Your task to perform on an android device: turn off data saver in the chrome app Image 0: 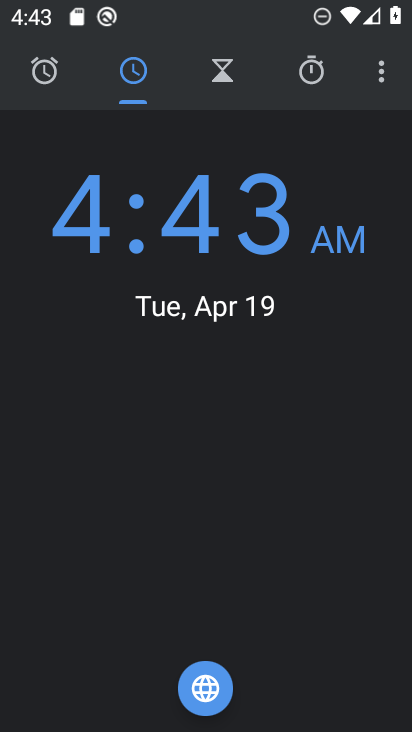
Step 0: press home button
Your task to perform on an android device: turn off data saver in the chrome app Image 1: 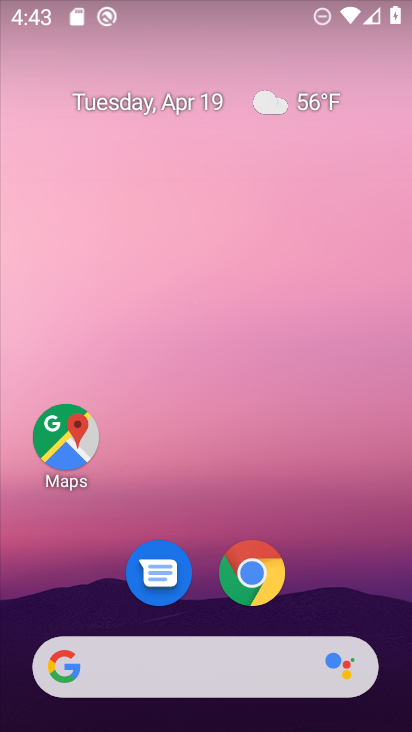
Step 1: click (240, 586)
Your task to perform on an android device: turn off data saver in the chrome app Image 2: 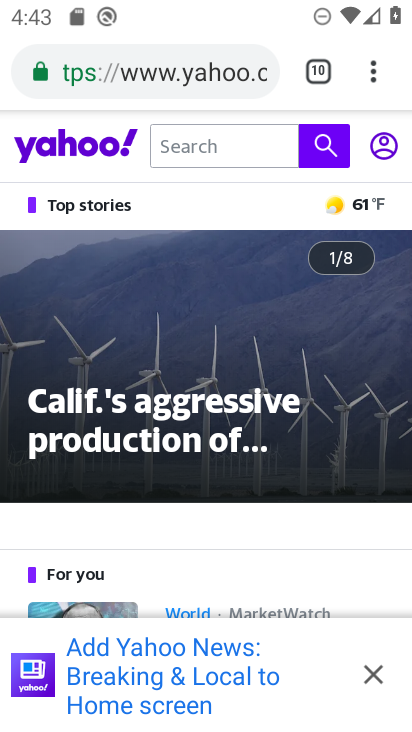
Step 2: click (374, 75)
Your task to perform on an android device: turn off data saver in the chrome app Image 3: 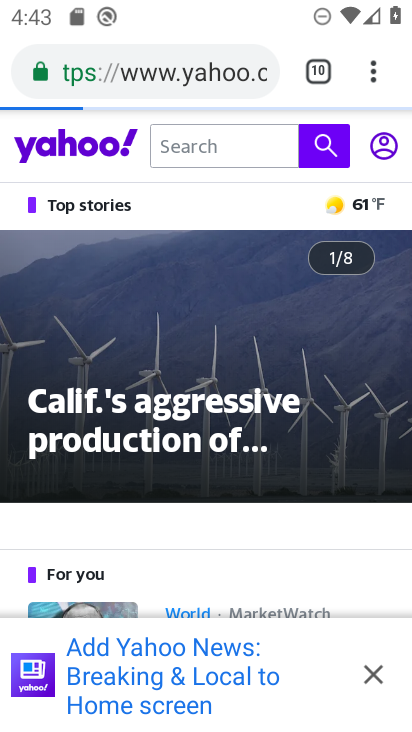
Step 3: click (374, 75)
Your task to perform on an android device: turn off data saver in the chrome app Image 4: 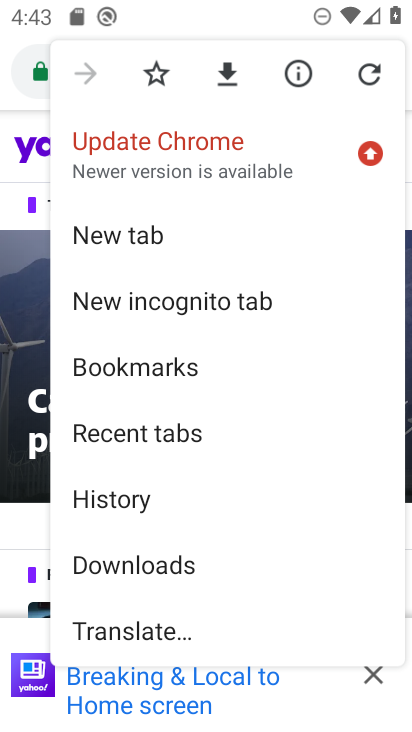
Step 4: drag from (245, 533) to (260, 200)
Your task to perform on an android device: turn off data saver in the chrome app Image 5: 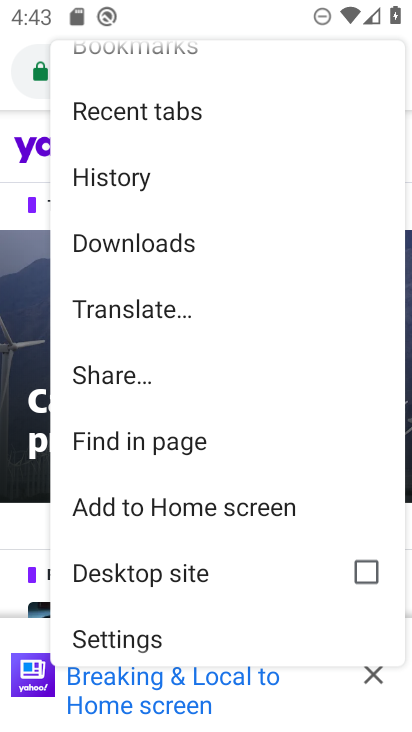
Step 5: drag from (244, 449) to (251, 200)
Your task to perform on an android device: turn off data saver in the chrome app Image 6: 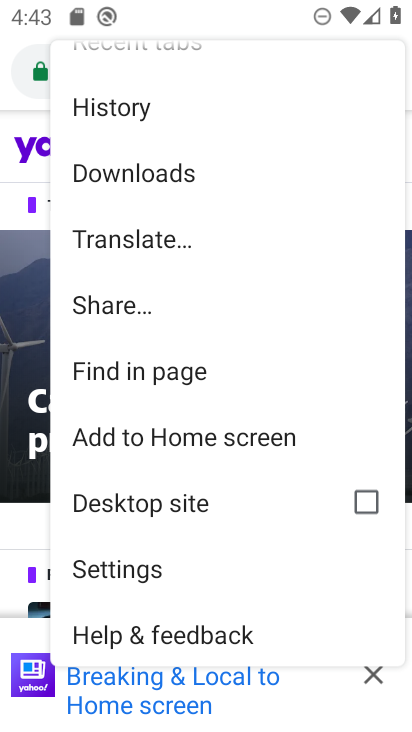
Step 6: click (132, 566)
Your task to perform on an android device: turn off data saver in the chrome app Image 7: 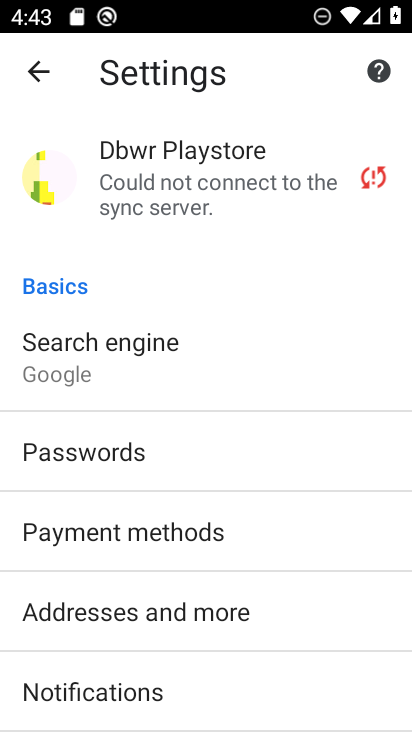
Step 7: drag from (275, 575) to (260, 312)
Your task to perform on an android device: turn off data saver in the chrome app Image 8: 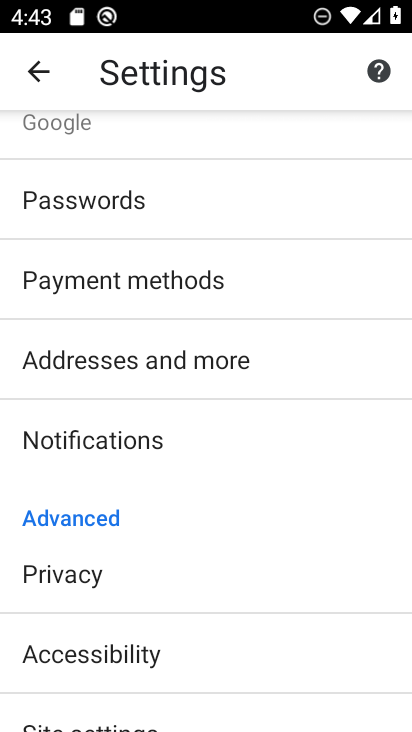
Step 8: drag from (201, 570) to (185, 310)
Your task to perform on an android device: turn off data saver in the chrome app Image 9: 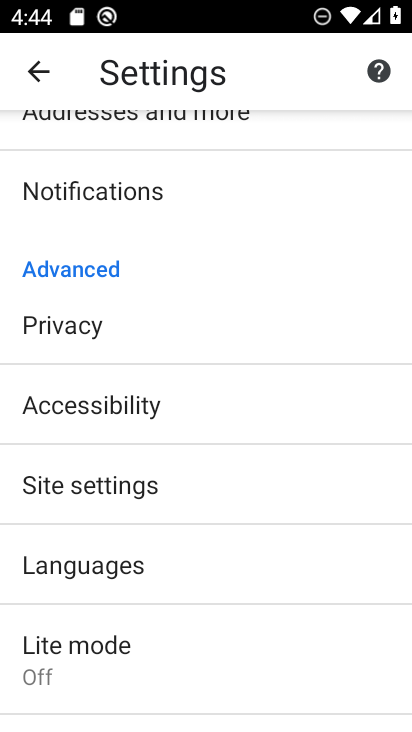
Step 9: click (90, 646)
Your task to perform on an android device: turn off data saver in the chrome app Image 10: 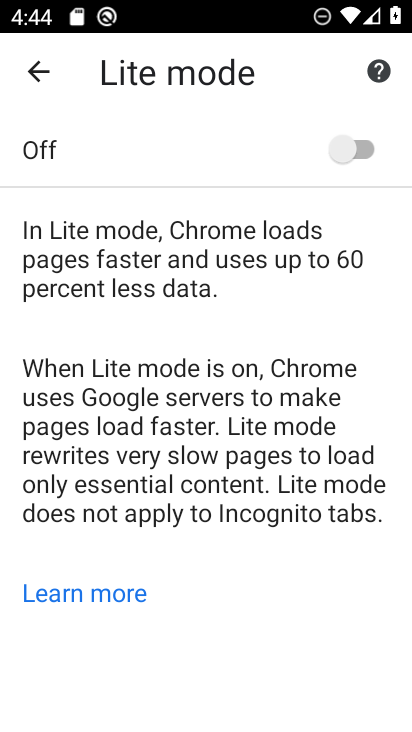
Step 10: task complete